Your task to perform on an android device: View the shopping cart on amazon. Add bose soundlink mini to the cart on amazon Image 0: 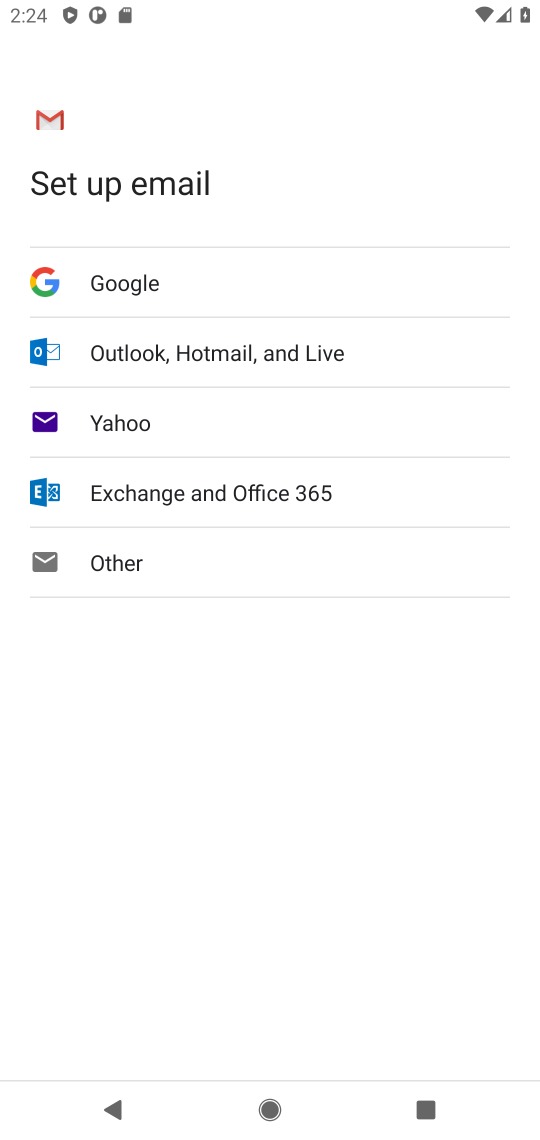
Step 0: press home button
Your task to perform on an android device: View the shopping cart on amazon. Add bose soundlink mini to the cart on amazon Image 1: 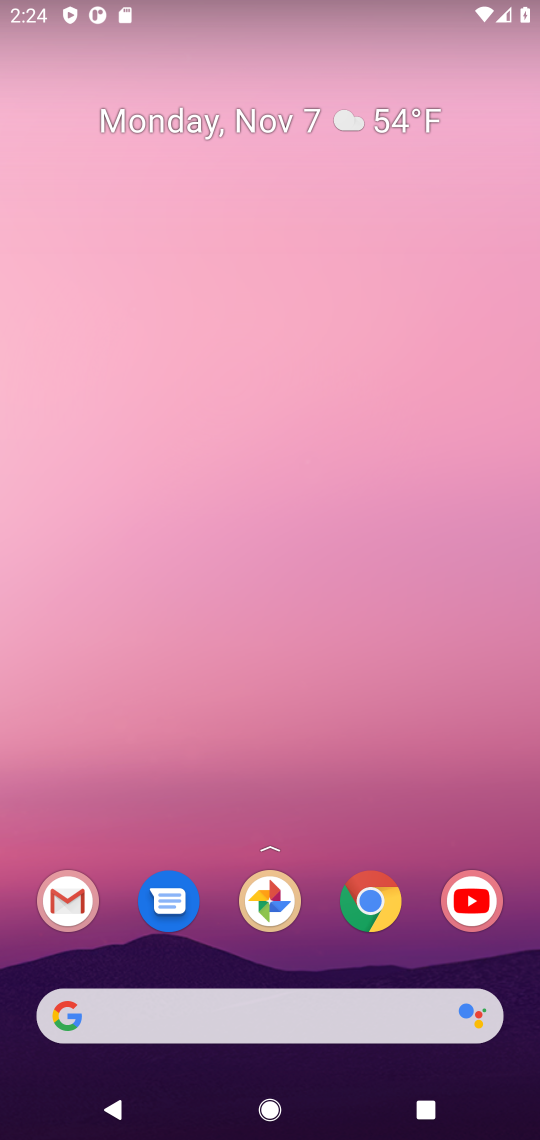
Step 1: click (371, 894)
Your task to perform on an android device: View the shopping cart on amazon. Add bose soundlink mini to the cart on amazon Image 2: 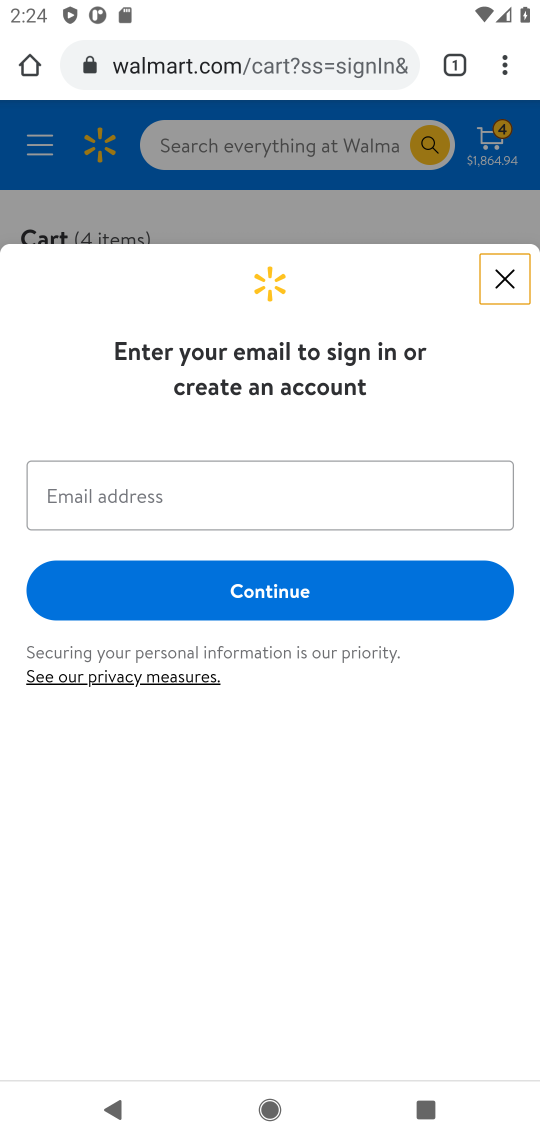
Step 2: click (249, 70)
Your task to perform on an android device: View the shopping cart on amazon. Add bose soundlink mini to the cart on amazon Image 3: 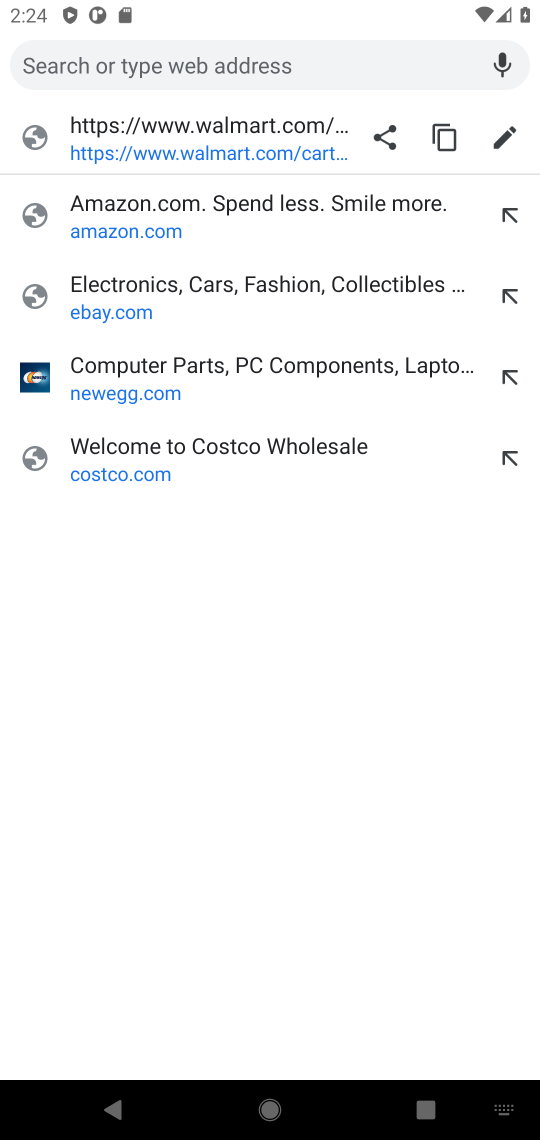
Step 3: click (150, 244)
Your task to perform on an android device: View the shopping cart on amazon. Add bose soundlink mini to the cart on amazon Image 4: 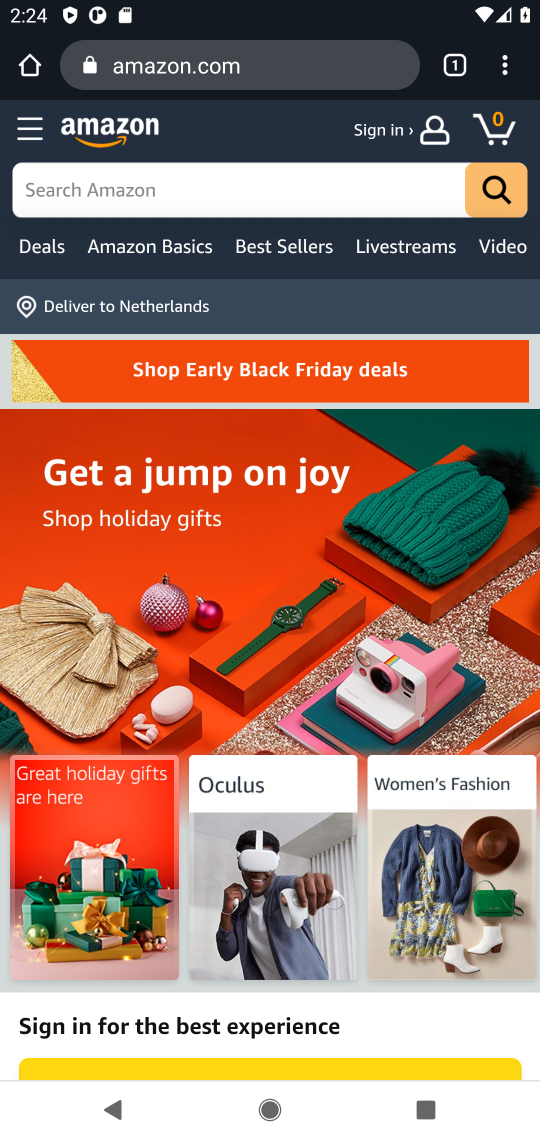
Step 4: click (495, 131)
Your task to perform on an android device: View the shopping cart on amazon. Add bose soundlink mini to the cart on amazon Image 5: 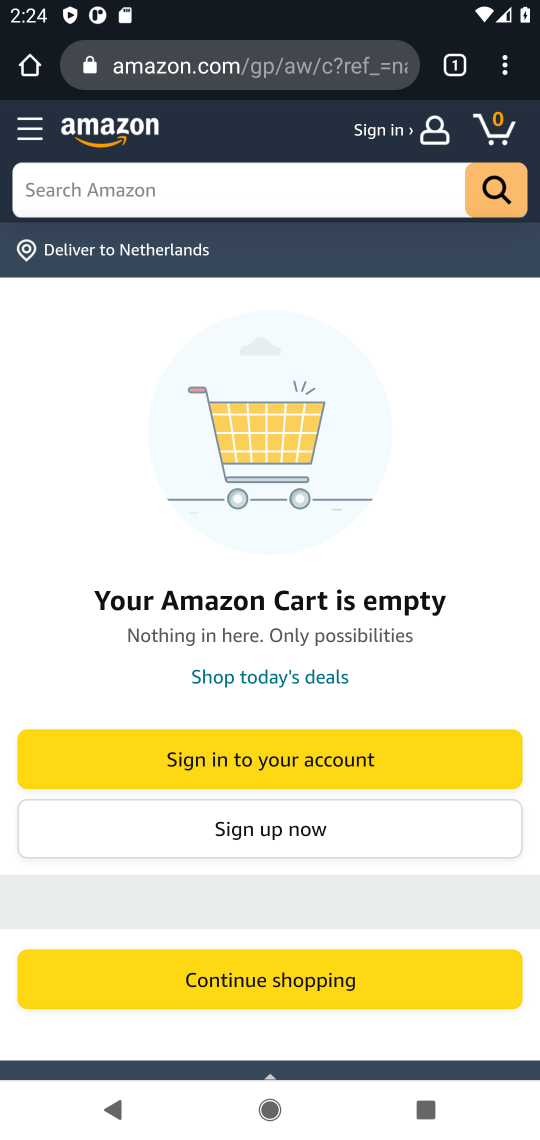
Step 5: click (181, 184)
Your task to perform on an android device: View the shopping cart on amazon. Add bose soundlink mini to the cart on amazon Image 6: 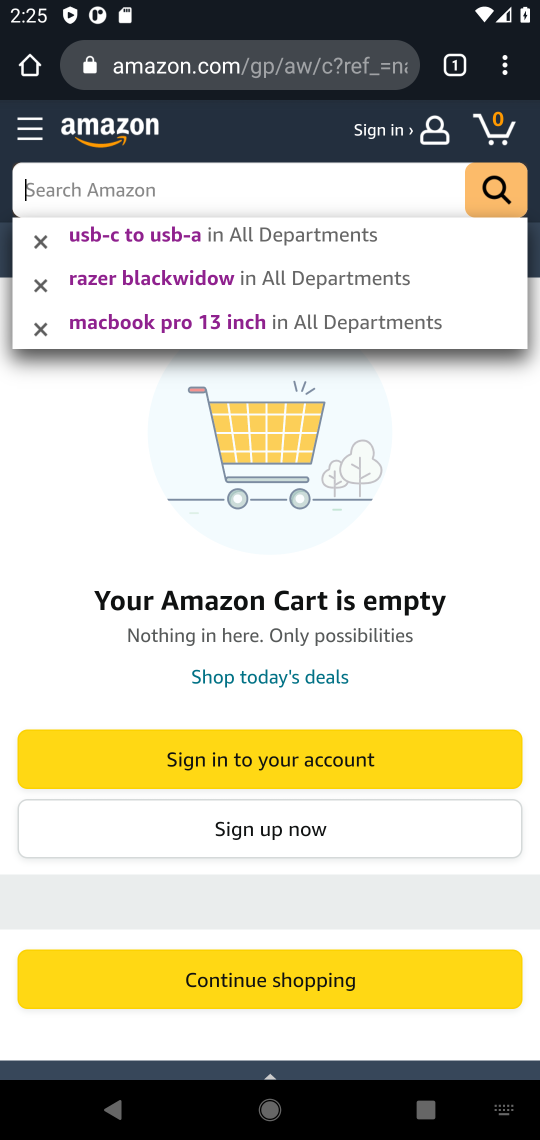
Step 6: type "bose soundlink mini"
Your task to perform on an android device: View the shopping cart on amazon. Add bose soundlink mini to the cart on amazon Image 7: 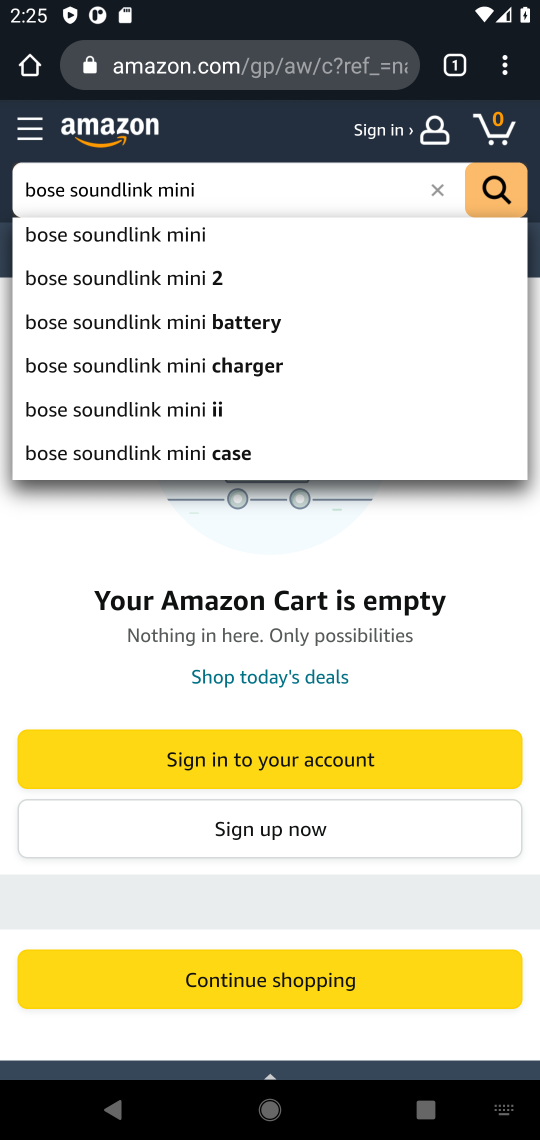
Step 7: click (502, 190)
Your task to perform on an android device: View the shopping cart on amazon. Add bose soundlink mini to the cart on amazon Image 8: 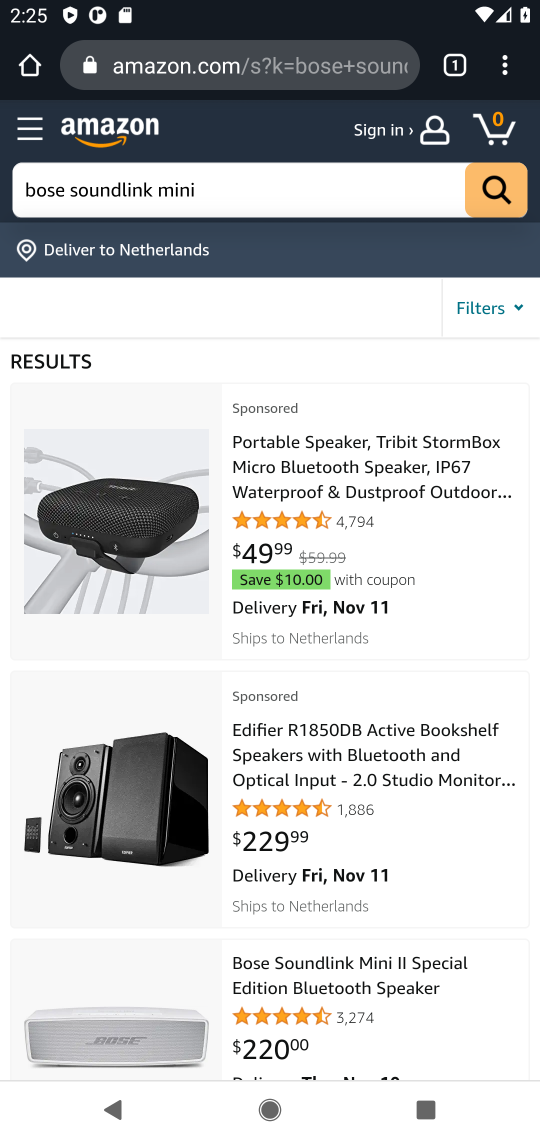
Step 8: drag from (232, 873) to (258, 616)
Your task to perform on an android device: View the shopping cart on amazon. Add bose soundlink mini to the cart on amazon Image 9: 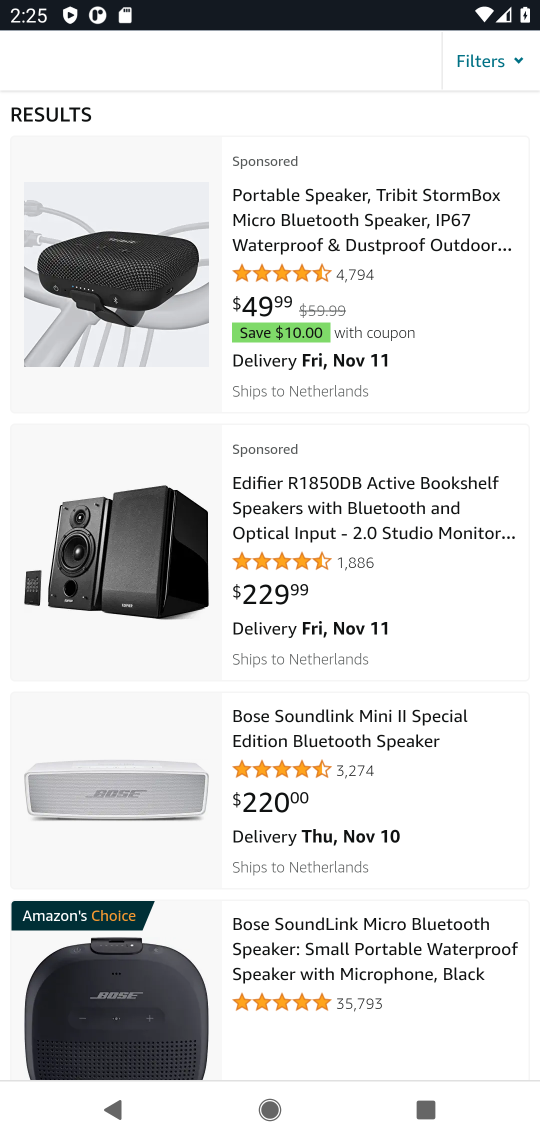
Step 9: click (256, 753)
Your task to perform on an android device: View the shopping cart on amazon. Add bose soundlink mini to the cart on amazon Image 10: 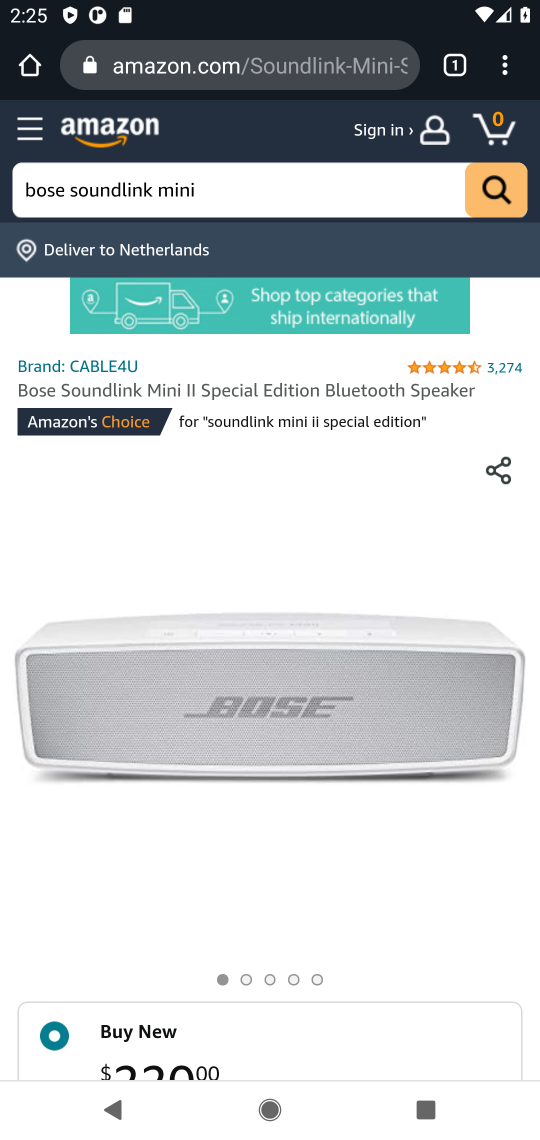
Step 10: drag from (376, 968) to (365, 446)
Your task to perform on an android device: View the shopping cart on amazon. Add bose soundlink mini to the cart on amazon Image 11: 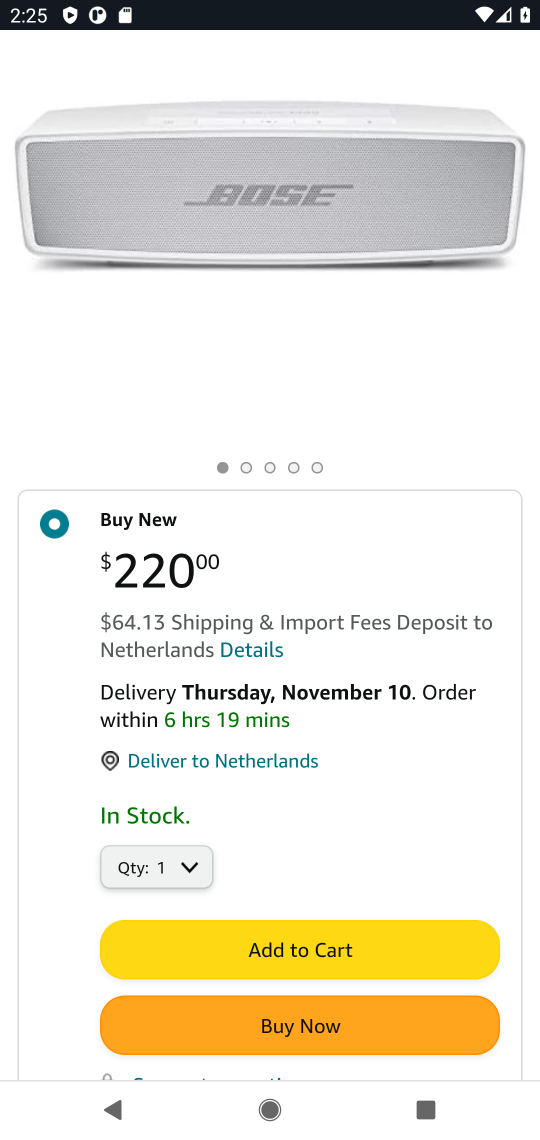
Step 11: click (324, 945)
Your task to perform on an android device: View the shopping cart on amazon. Add bose soundlink mini to the cart on amazon Image 12: 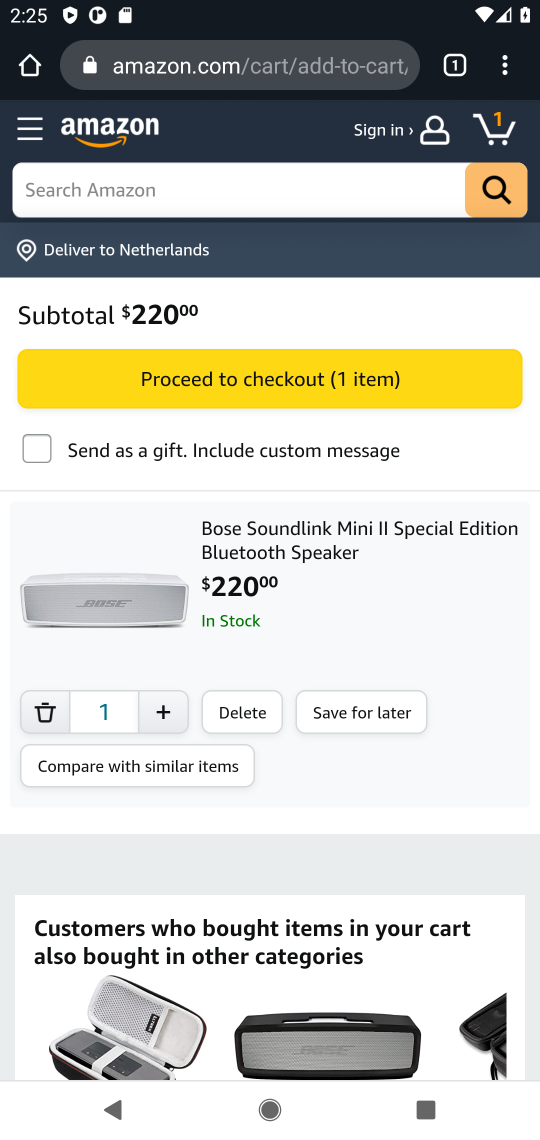
Step 12: task complete